Your task to perform on an android device: Open wifi settings Image 0: 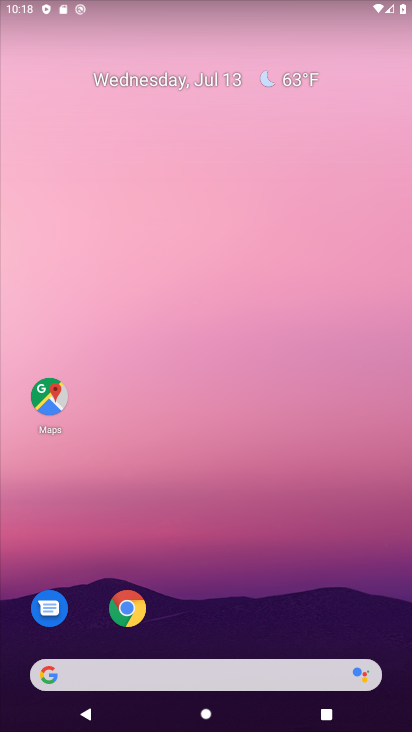
Step 0: drag from (140, 3) to (89, 720)
Your task to perform on an android device: Open wifi settings Image 1: 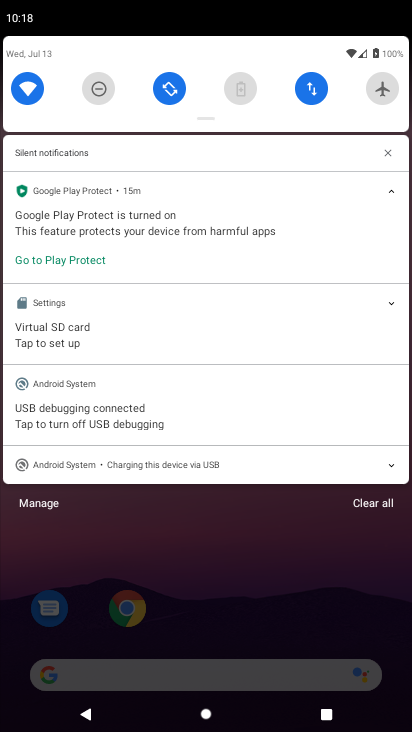
Step 1: click (17, 90)
Your task to perform on an android device: Open wifi settings Image 2: 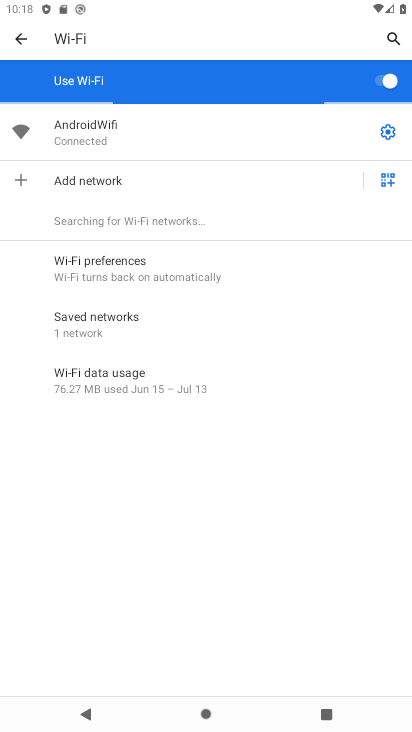
Step 2: task complete